Your task to perform on an android device: Go to Yahoo.com Image 0: 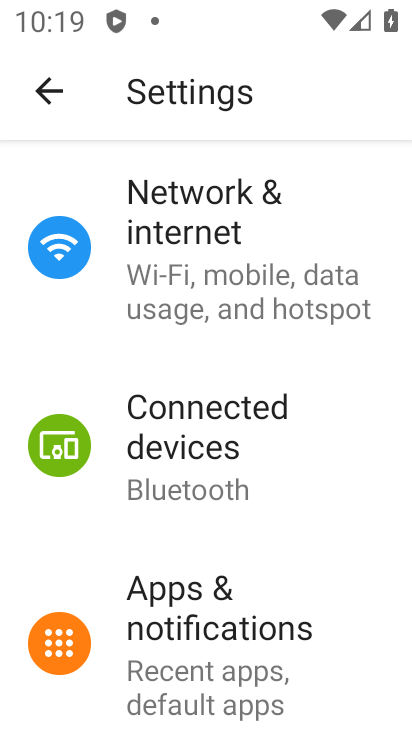
Step 0: press home button
Your task to perform on an android device: Go to Yahoo.com Image 1: 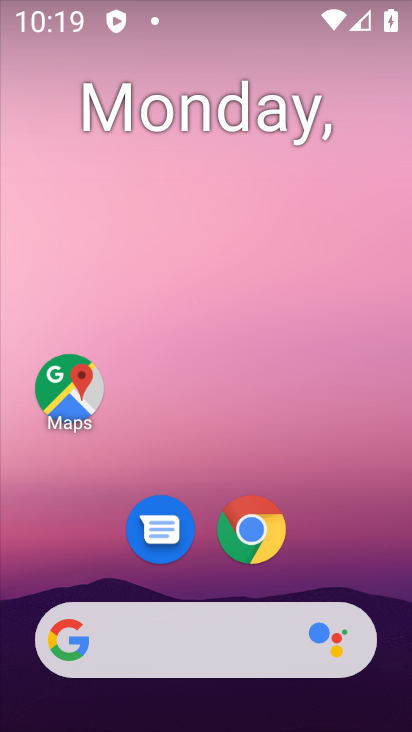
Step 1: click (257, 535)
Your task to perform on an android device: Go to Yahoo.com Image 2: 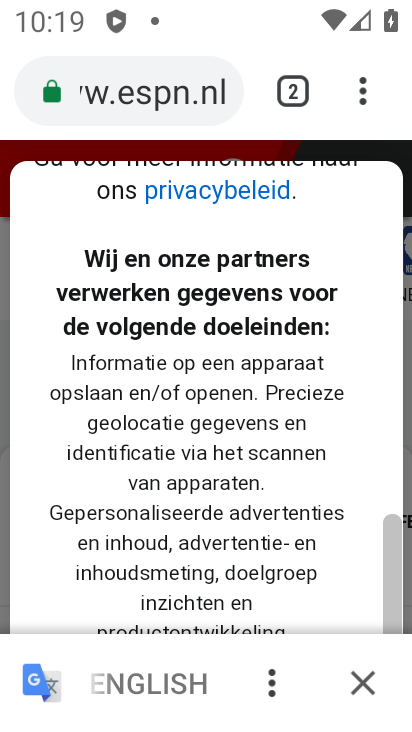
Step 2: click (360, 90)
Your task to perform on an android device: Go to Yahoo.com Image 3: 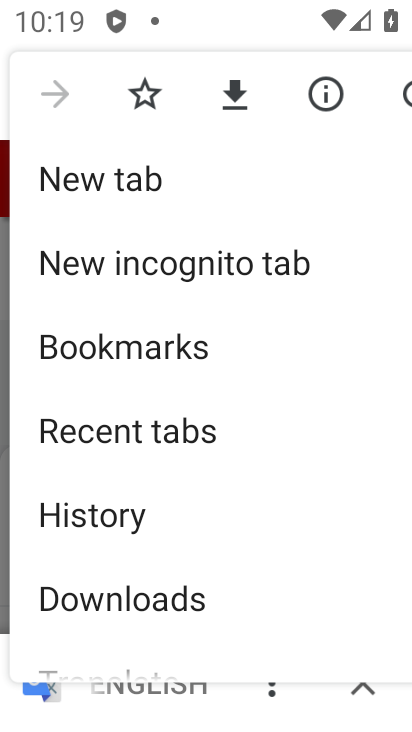
Step 3: click (143, 176)
Your task to perform on an android device: Go to Yahoo.com Image 4: 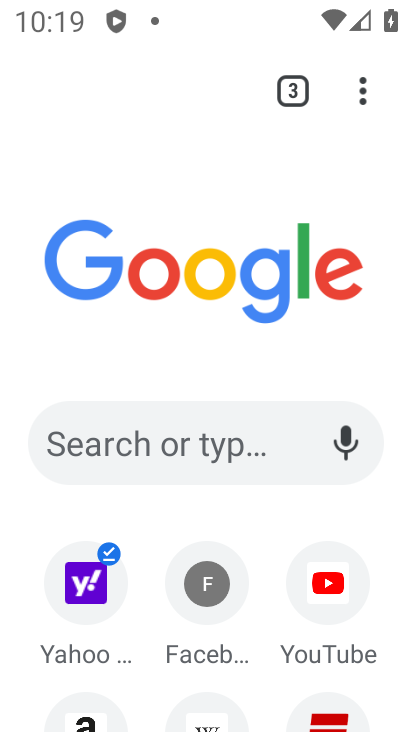
Step 4: click (83, 567)
Your task to perform on an android device: Go to Yahoo.com Image 5: 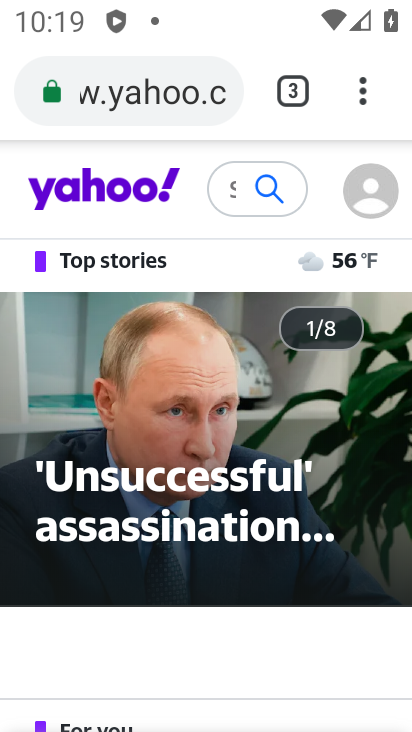
Step 5: task complete